Your task to perform on an android device: Empty the shopping cart on newegg.com. Image 0: 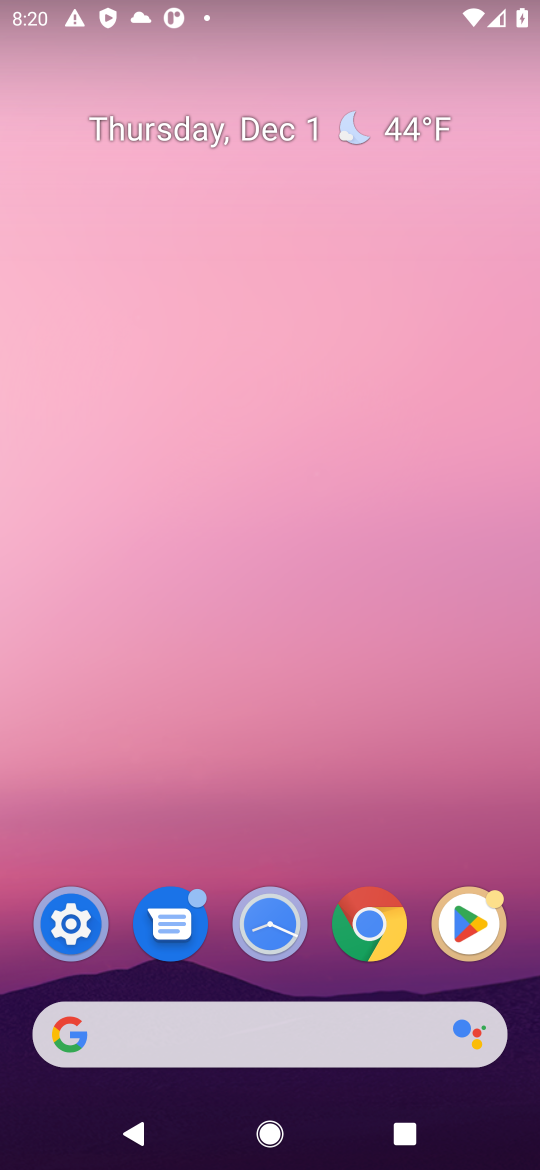
Step 0: click (364, 1028)
Your task to perform on an android device: Empty the shopping cart on newegg.com. Image 1: 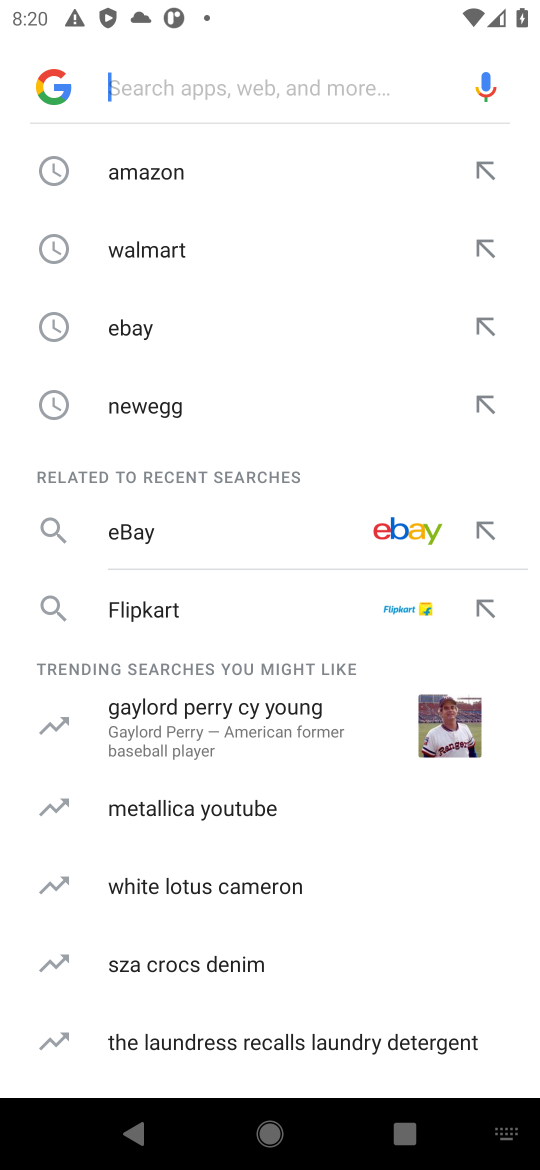
Step 1: type "newegg"
Your task to perform on an android device: Empty the shopping cart on newegg.com. Image 2: 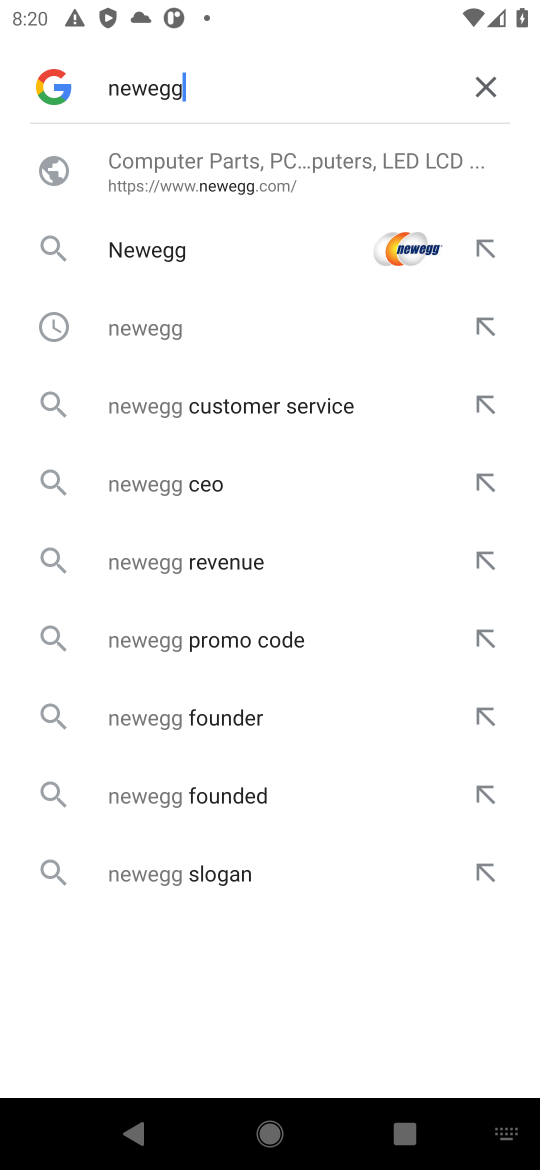
Step 2: click (177, 235)
Your task to perform on an android device: Empty the shopping cart on newegg.com. Image 3: 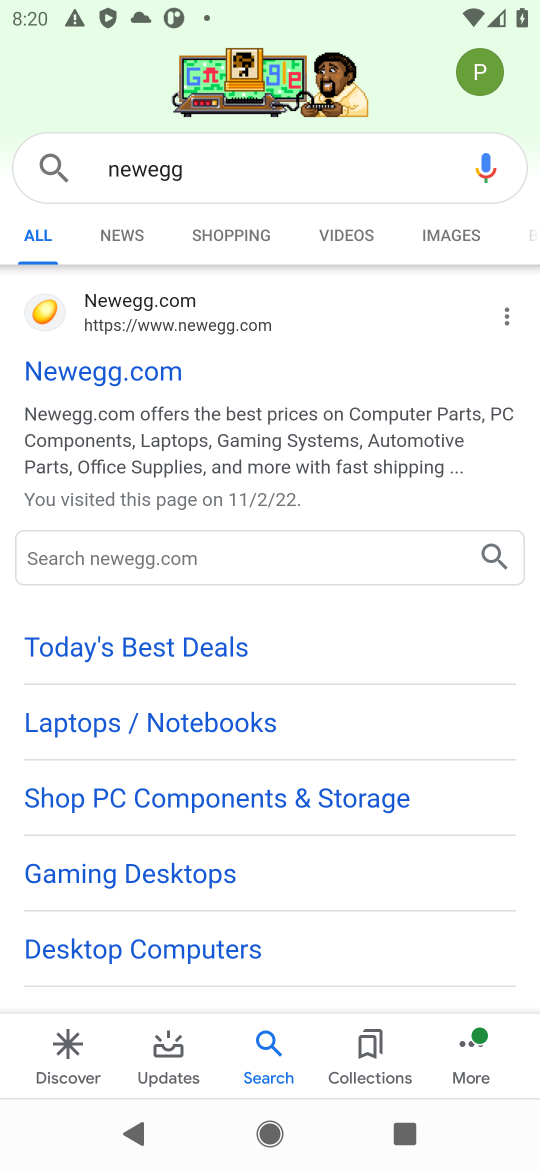
Step 3: click (105, 355)
Your task to perform on an android device: Empty the shopping cart on newegg.com. Image 4: 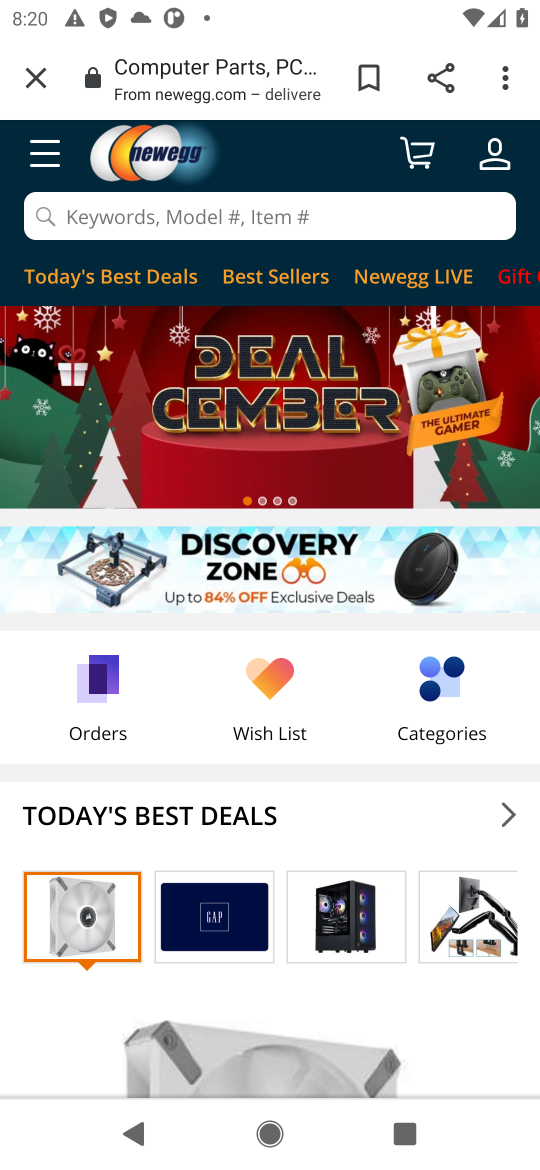
Step 4: task complete